Your task to perform on an android device: turn on data saver in the chrome app Image 0: 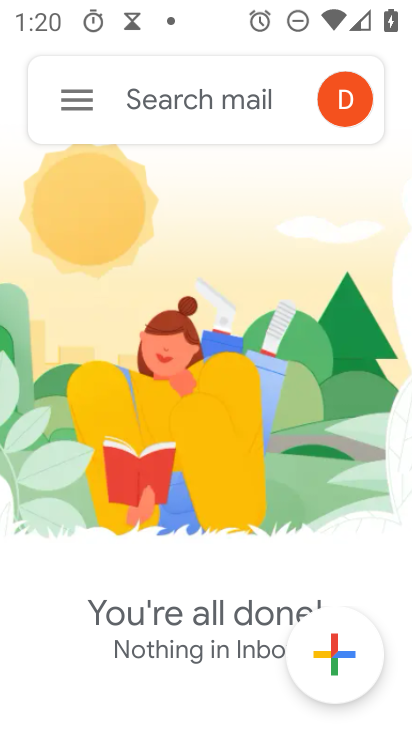
Step 0: press home button
Your task to perform on an android device: turn on data saver in the chrome app Image 1: 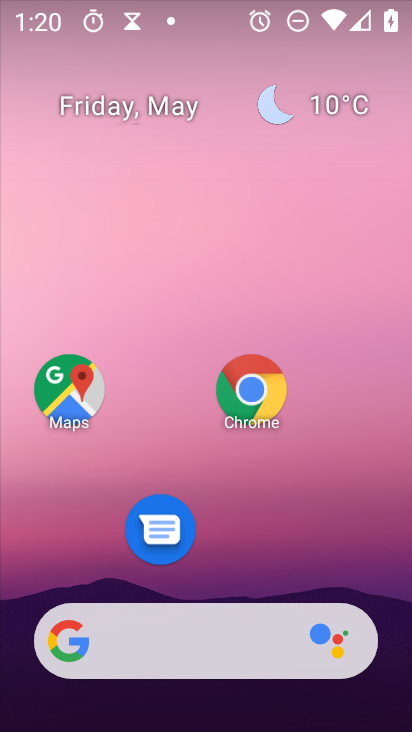
Step 1: drag from (148, 652) to (270, 203)
Your task to perform on an android device: turn on data saver in the chrome app Image 2: 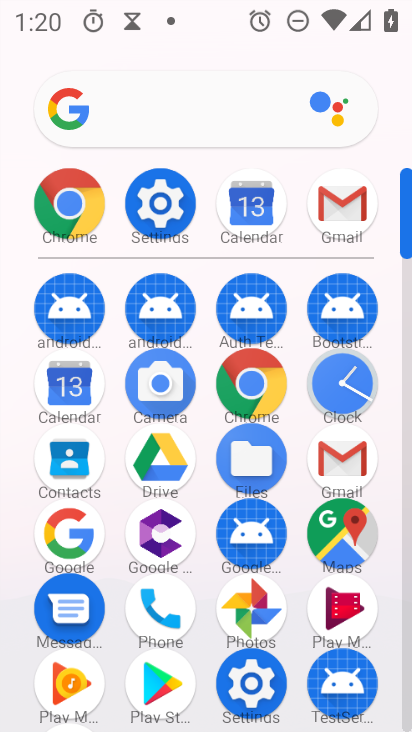
Step 2: click (63, 215)
Your task to perform on an android device: turn on data saver in the chrome app Image 3: 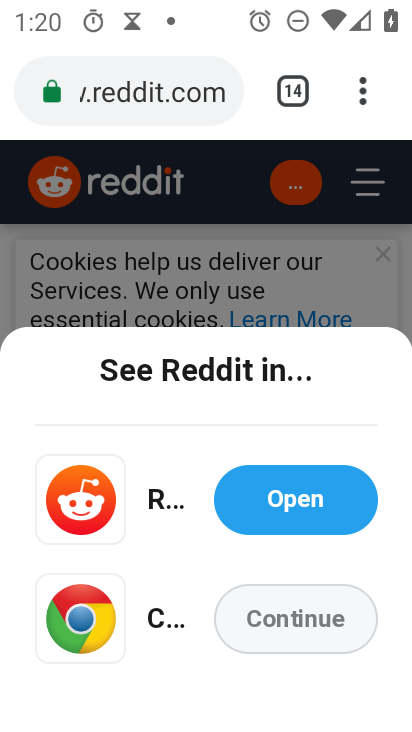
Step 3: drag from (366, 105) to (212, 564)
Your task to perform on an android device: turn on data saver in the chrome app Image 4: 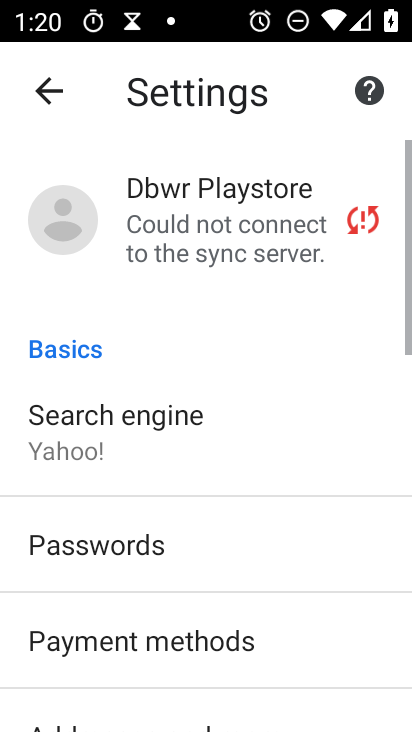
Step 4: drag from (164, 651) to (267, 117)
Your task to perform on an android device: turn on data saver in the chrome app Image 5: 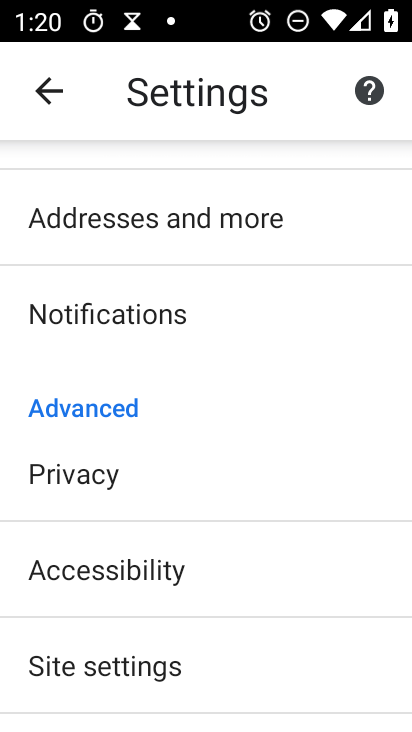
Step 5: drag from (131, 656) to (233, 238)
Your task to perform on an android device: turn on data saver in the chrome app Image 6: 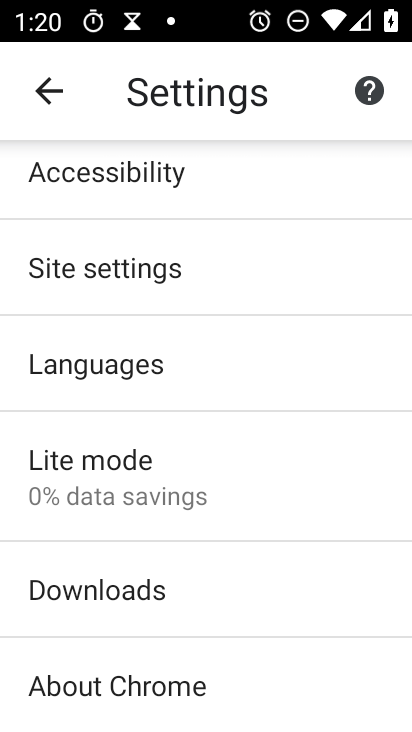
Step 6: click (136, 471)
Your task to perform on an android device: turn on data saver in the chrome app Image 7: 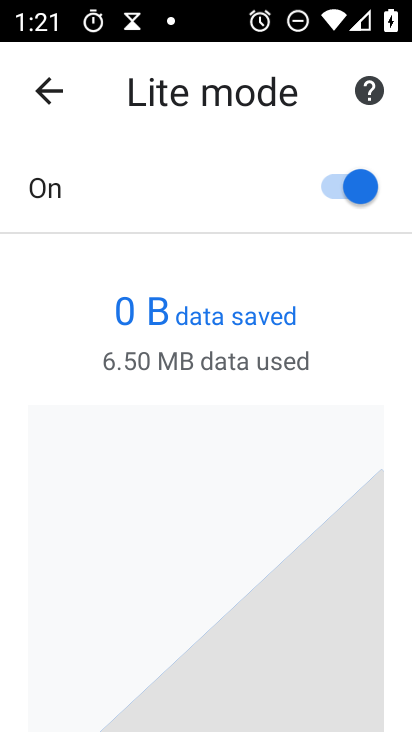
Step 7: task complete